Your task to perform on an android device: toggle priority inbox in the gmail app Image 0: 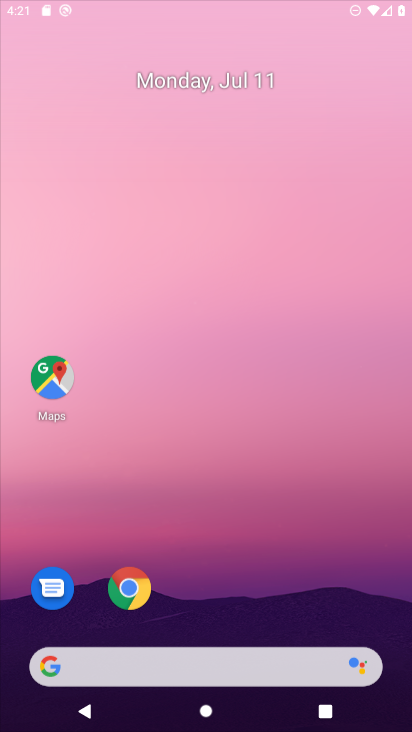
Step 0: click (197, 79)
Your task to perform on an android device: toggle priority inbox in the gmail app Image 1: 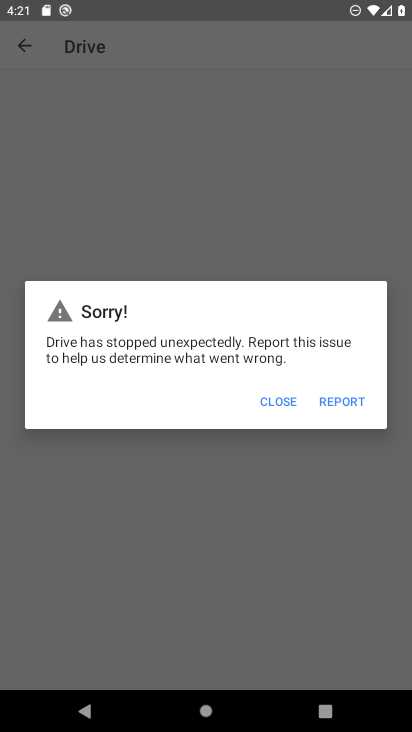
Step 1: press home button
Your task to perform on an android device: toggle priority inbox in the gmail app Image 2: 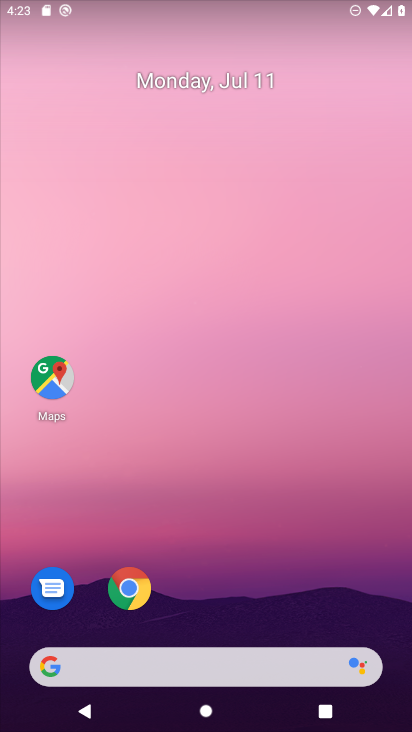
Step 2: drag from (144, 673) to (144, 3)
Your task to perform on an android device: toggle priority inbox in the gmail app Image 3: 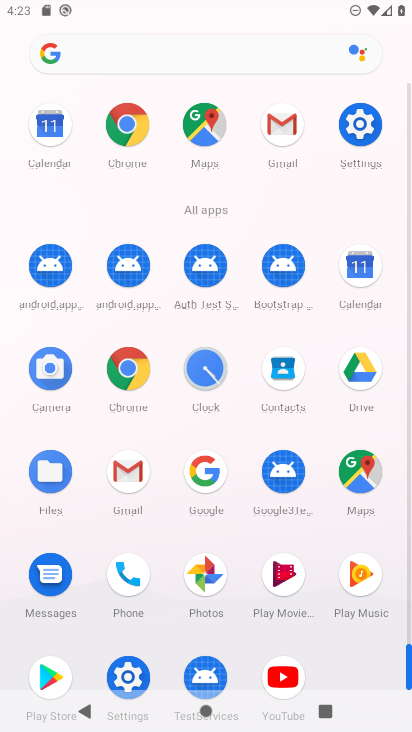
Step 3: click (288, 122)
Your task to perform on an android device: toggle priority inbox in the gmail app Image 4: 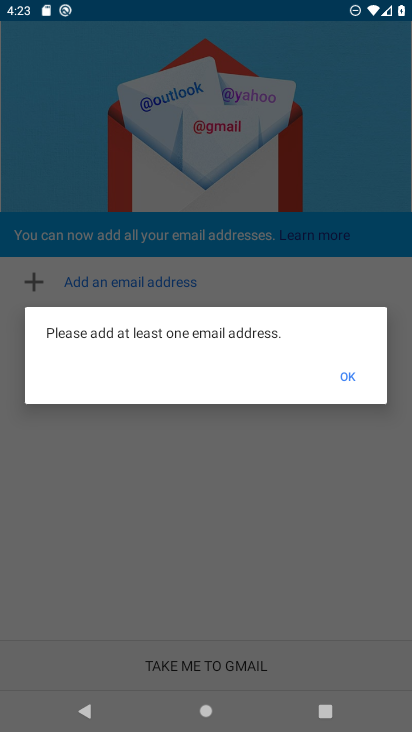
Step 4: task complete